Your task to perform on an android device: open the mobile data screen to see how much data has been used Image 0: 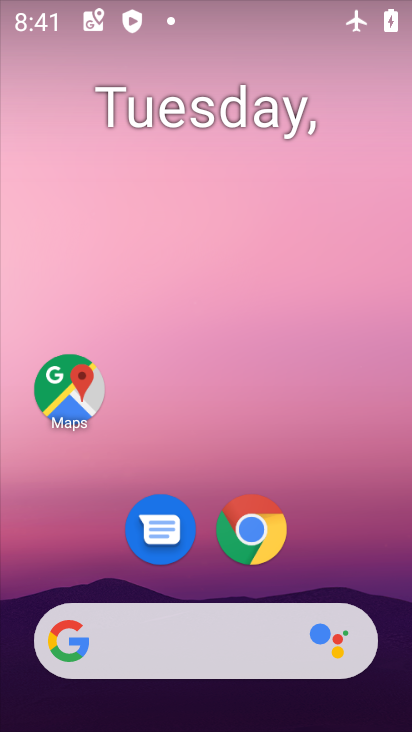
Step 0: drag from (210, 632) to (232, 12)
Your task to perform on an android device: open the mobile data screen to see how much data has been used Image 1: 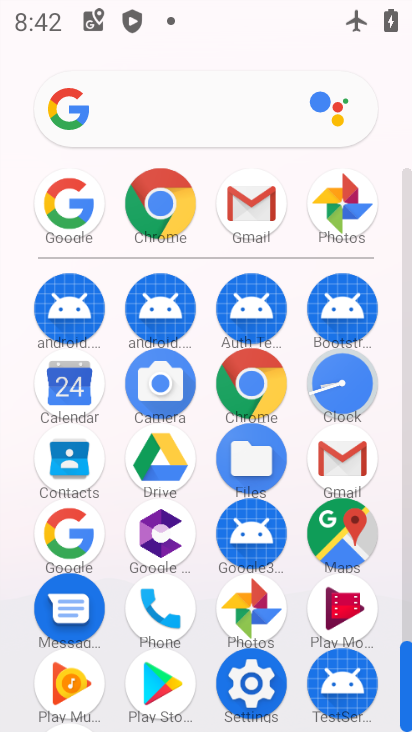
Step 1: click (263, 667)
Your task to perform on an android device: open the mobile data screen to see how much data has been used Image 2: 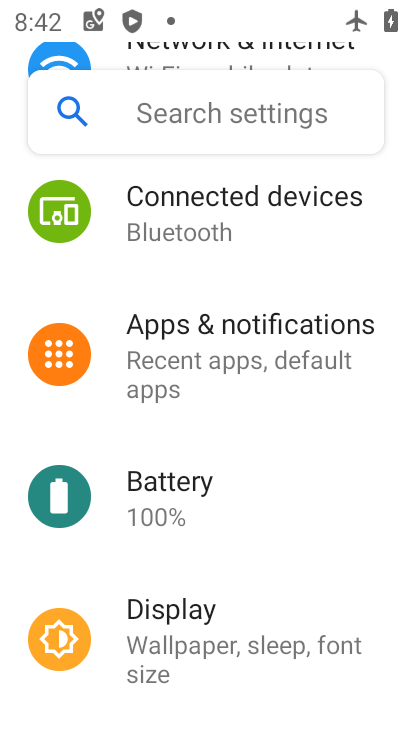
Step 2: drag from (272, 328) to (249, 619)
Your task to perform on an android device: open the mobile data screen to see how much data has been used Image 3: 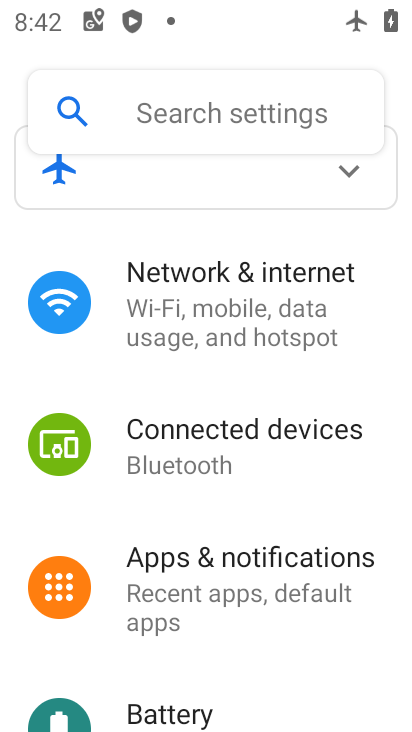
Step 3: click (252, 323)
Your task to perform on an android device: open the mobile data screen to see how much data has been used Image 4: 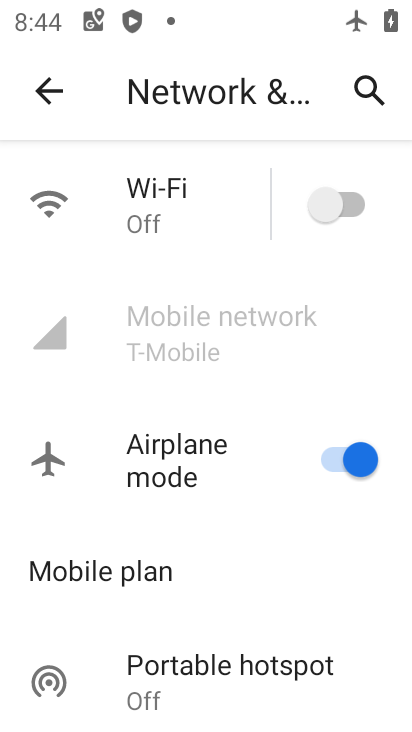
Step 4: task complete